Your task to perform on an android device: toggle pop-ups in chrome Image 0: 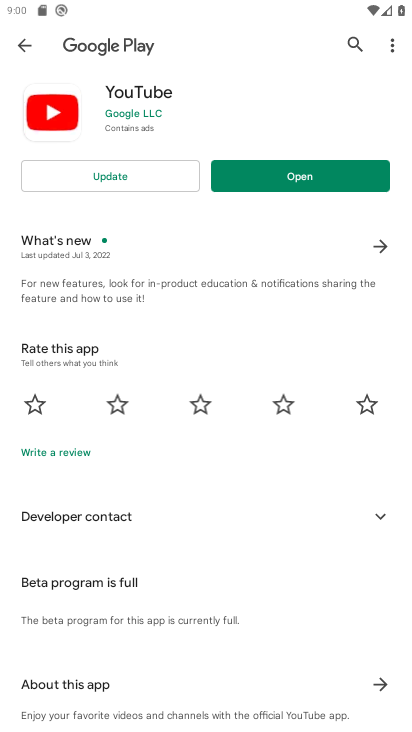
Step 0: press home button
Your task to perform on an android device: toggle pop-ups in chrome Image 1: 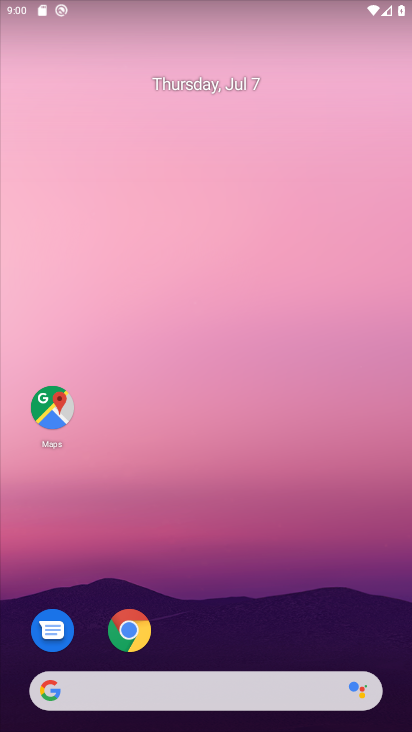
Step 1: click (134, 627)
Your task to perform on an android device: toggle pop-ups in chrome Image 2: 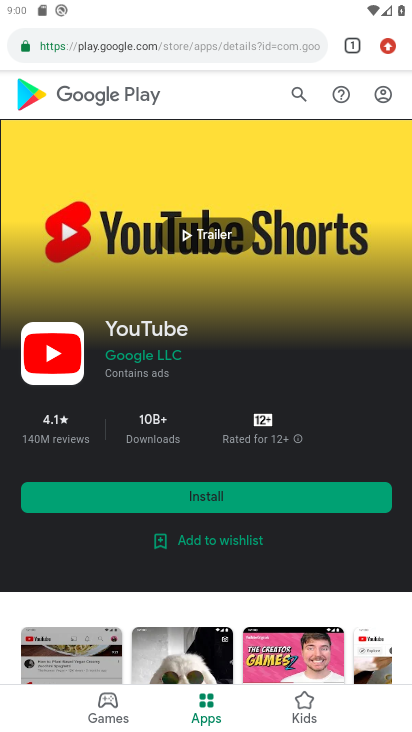
Step 2: click (384, 43)
Your task to perform on an android device: toggle pop-ups in chrome Image 3: 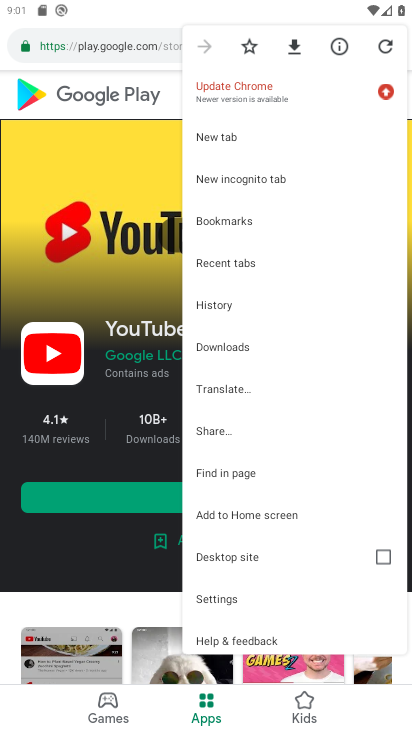
Step 3: click (240, 600)
Your task to perform on an android device: toggle pop-ups in chrome Image 4: 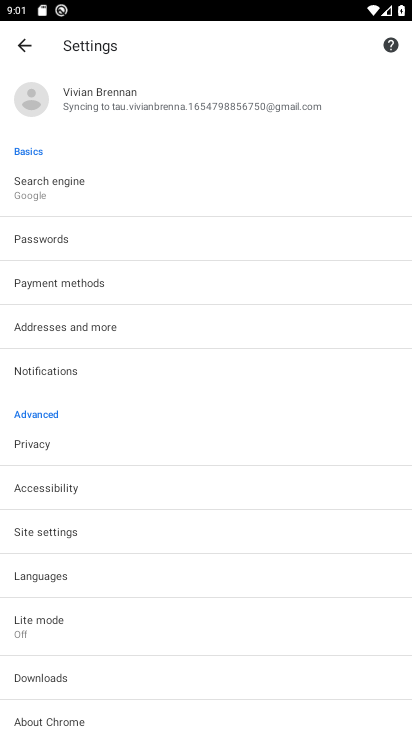
Step 4: click (55, 528)
Your task to perform on an android device: toggle pop-ups in chrome Image 5: 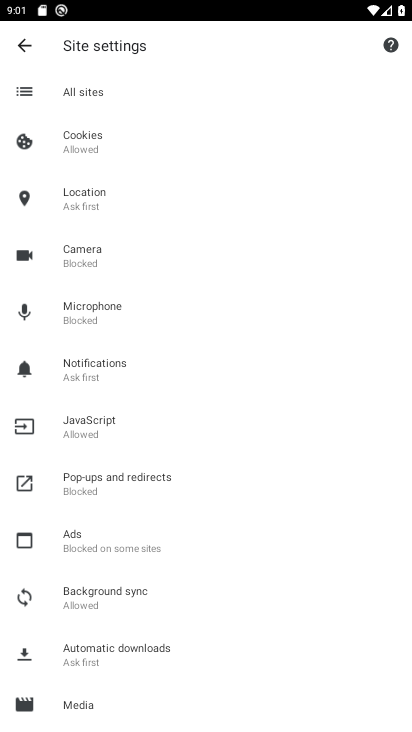
Step 5: click (116, 476)
Your task to perform on an android device: toggle pop-ups in chrome Image 6: 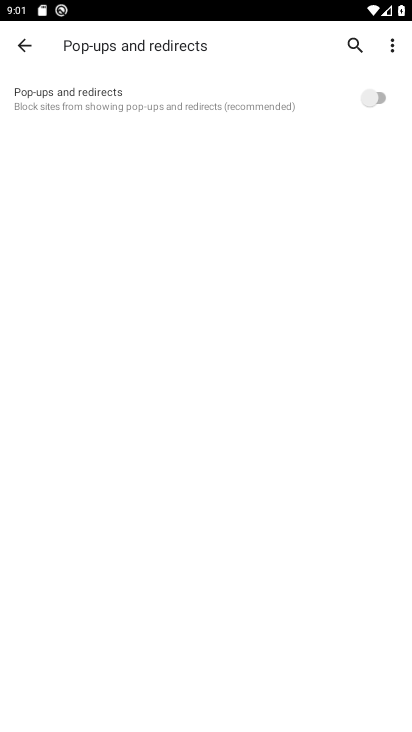
Step 6: click (363, 93)
Your task to perform on an android device: toggle pop-ups in chrome Image 7: 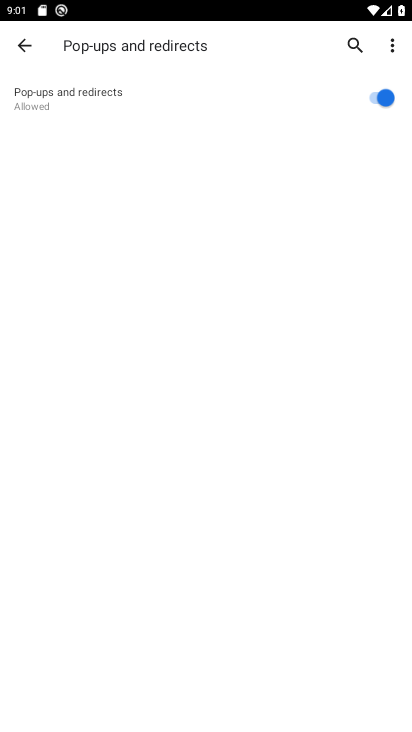
Step 7: task complete